Your task to perform on an android device: open a new tab in the chrome app Image 0: 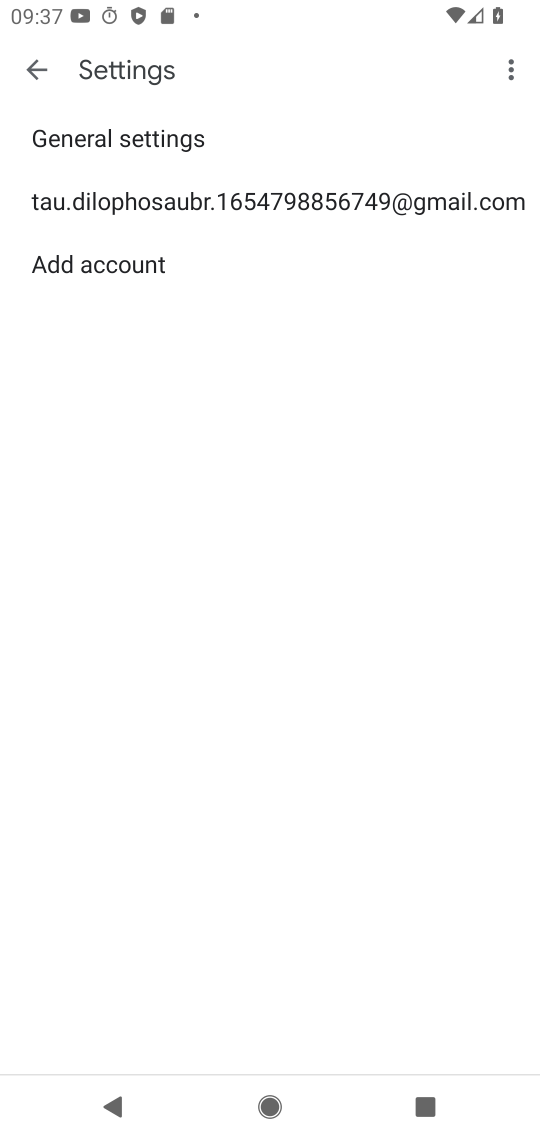
Step 0: press home button
Your task to perform on an android device: open a new tab in the chrome app Image 1: 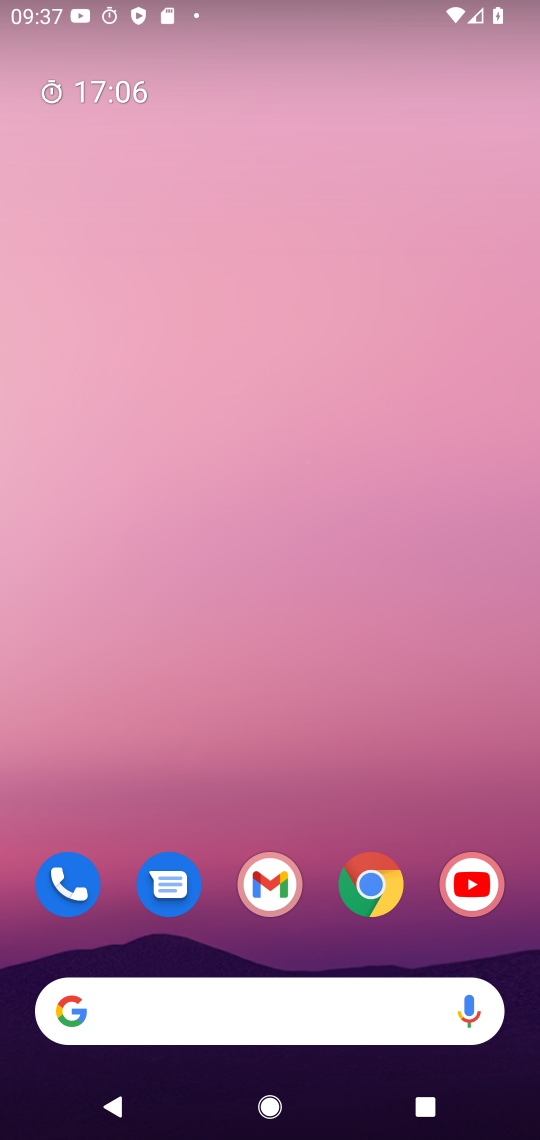
Step 1: click (373, 896)
Your task to perform on an android device: open a new tab in the chrome app Image 2: 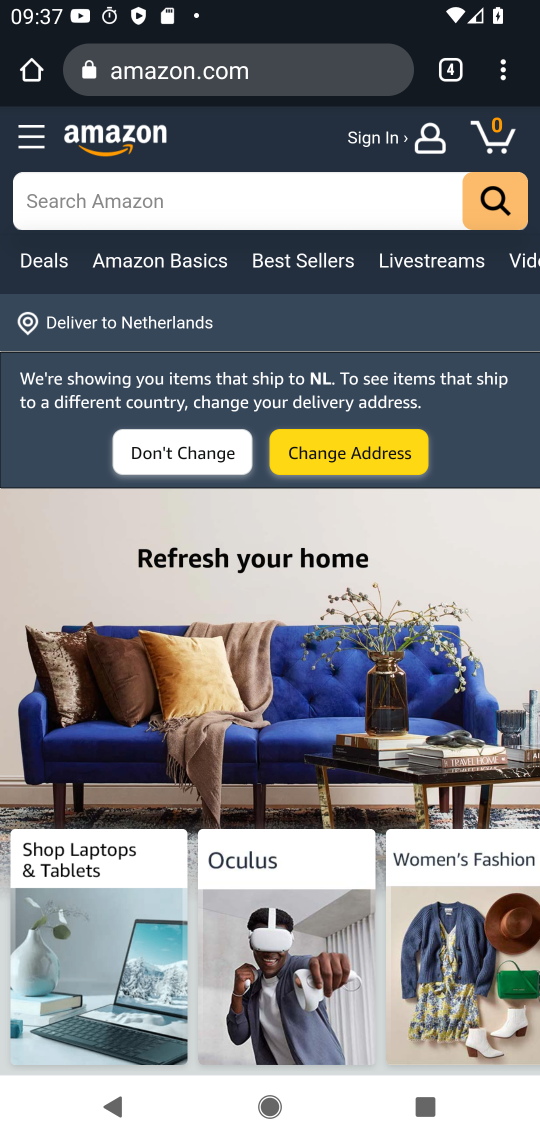
Step 2: click (460, 58)
Your task to perform on an android device: open a new tab in the chrome app Image 3: 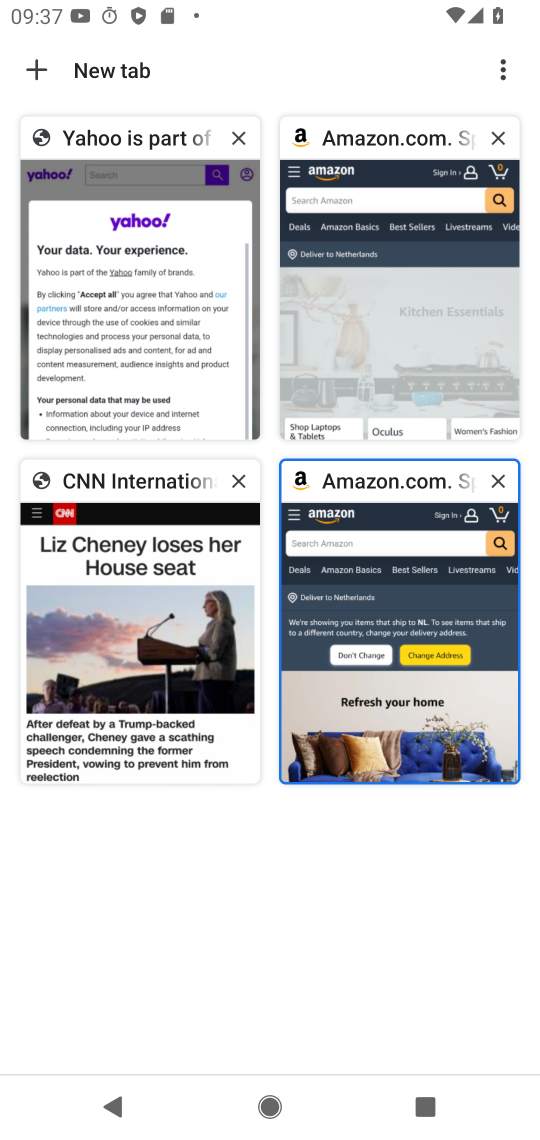
Step 3: click (25, 63)
Your task to perform on an android device: open a new tab in the chrome app Image 4: 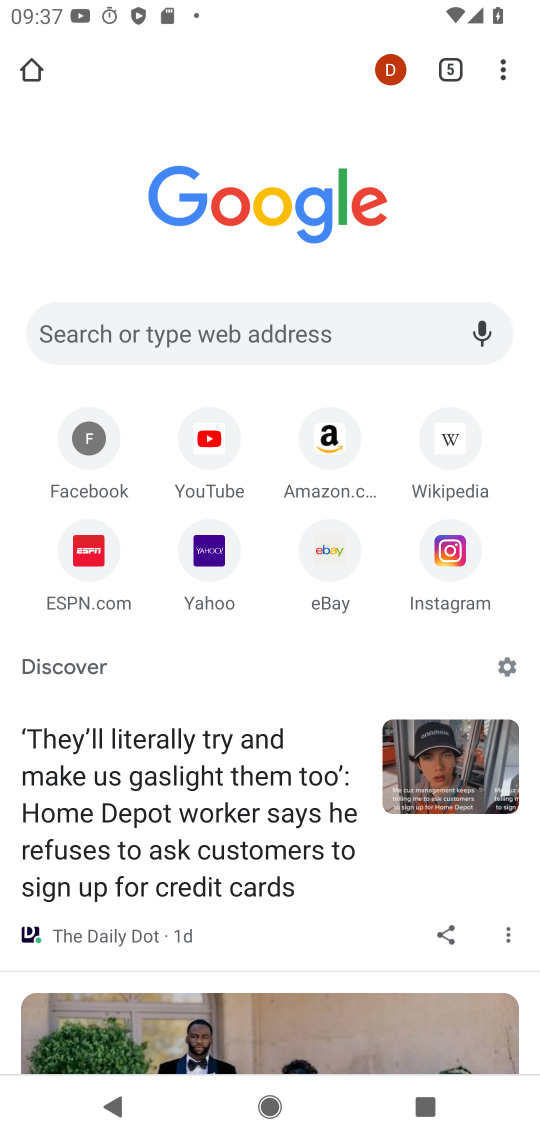
Step 4: task complete